Your task to perform on an android device: turn off smart reply in the gmail app Image 0: 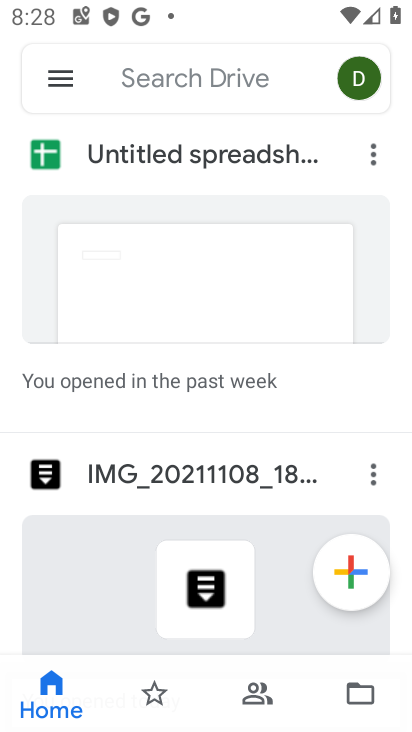
Step 0: press home button
Your task to perform on an android device: turn off smart reply in the gmail app Image 1: 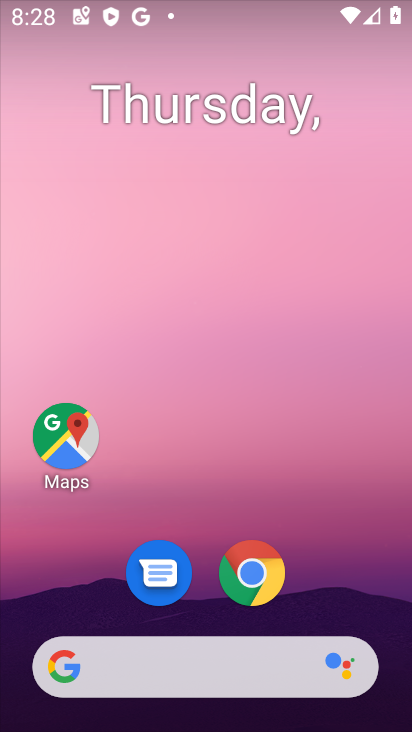
Step 1: drag from (309, 515) to (330, 165)
Your task to perform on an android device: turn off smart reply in the gmail app Image 2: 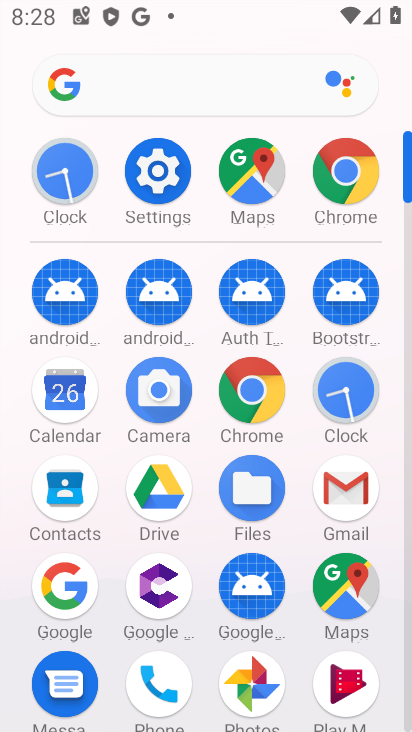
Step 2: click (333, 509)
Your task to perform on an android device: turn off smart reply in the gmail app Image 3: 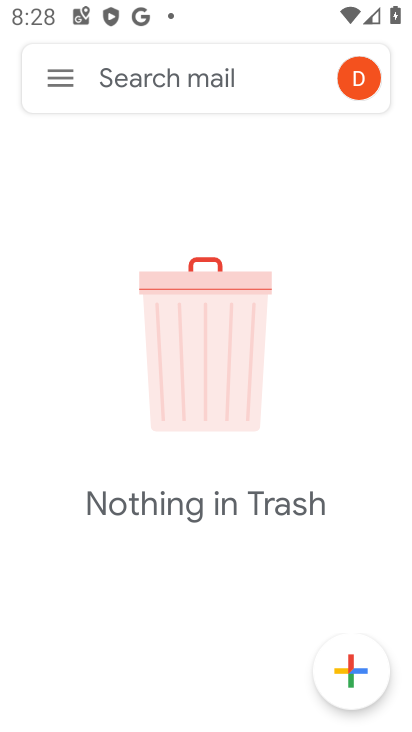
Step 3: click (69, 84)
Your task to perform on an android device: turn off smart reply in the gmail app Image 4: 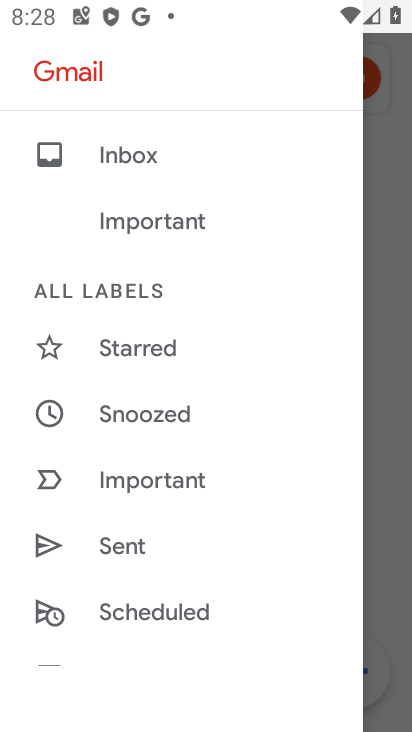
Step 4: drag from (170, 676) to (251, 230)
Your task to perform on an android device: turn off smart reply in the gmail app Image 5: 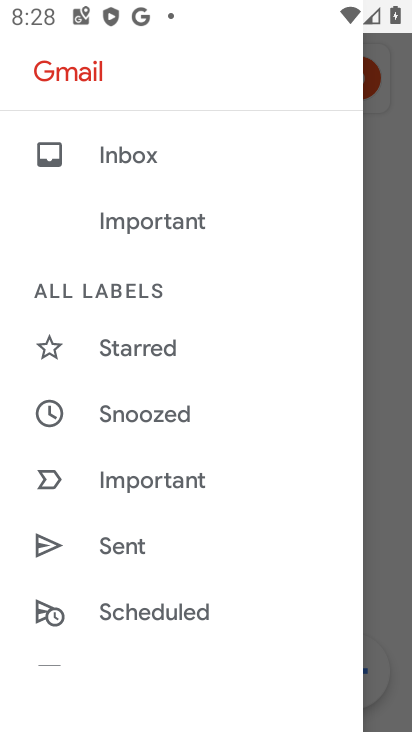
Step 5: drag from (213, 587) to (283, 244)
Your task to perform on an android device: turn off smart reply in the gmail app Image 6: 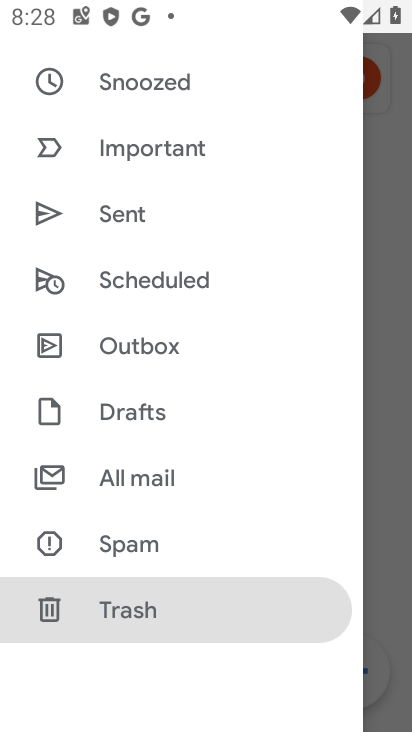
Step 6: drag from (227, 524) to (260, 148)
Your task to perform on an android device: turn off smart reply in the gmail app Image 7: 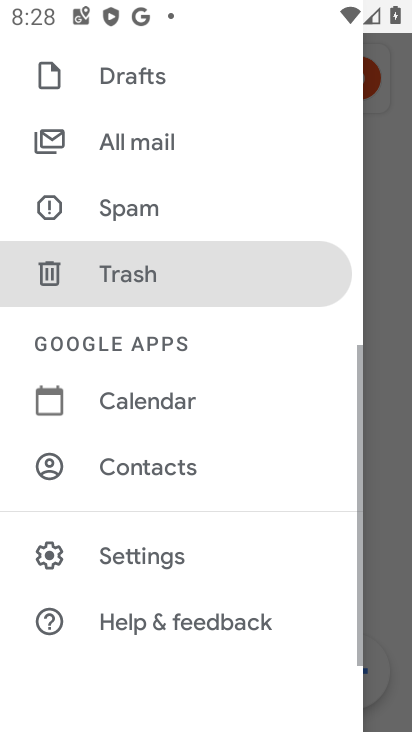
Step 7: click (168, 564)
Your task to perform on an android device: turn off smart reply in the gmail app Image 8: 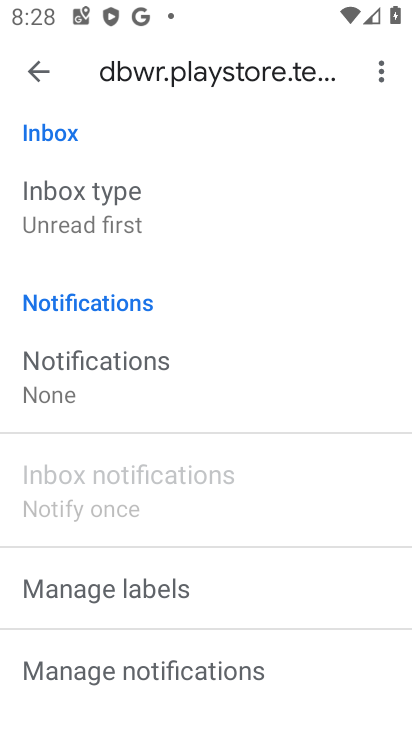
Step 8: drag from (241, 618) to (287, 301)
Your task to perform on an android device: turn off smart reply in the gmail app Image 9: 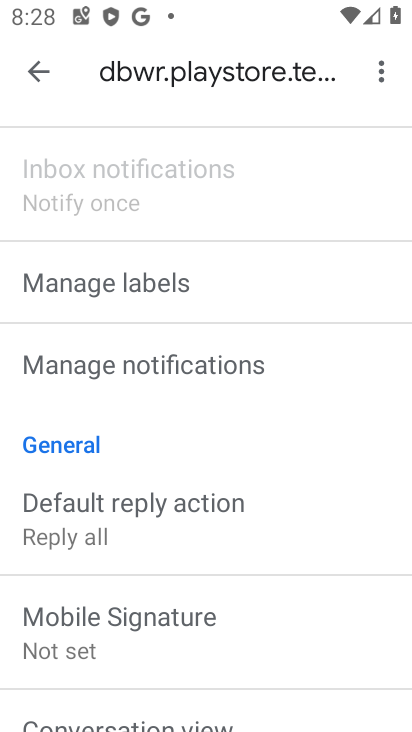
Step 9: drag from (280, 662) to (284, 340)
Your task to perform on an android device: turn off smart reply in the gmail app Image 10: 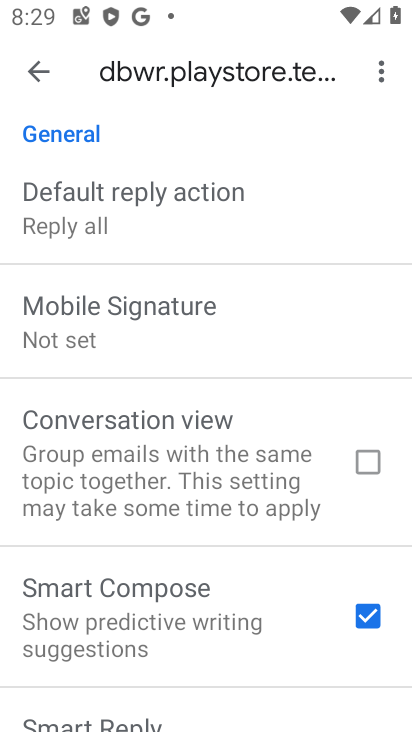
Step 10: drag from (227, 603) to (233, 310)
Your task to perform on an android device: turn off smart reply in the gmail app Image 11: 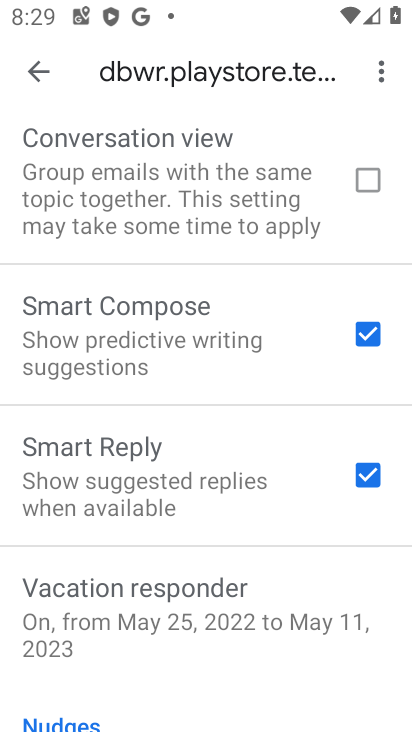
Step 11: click (372, 481)
Your task to perform on an android device: turn off smart reply in the gmail app Image 12: 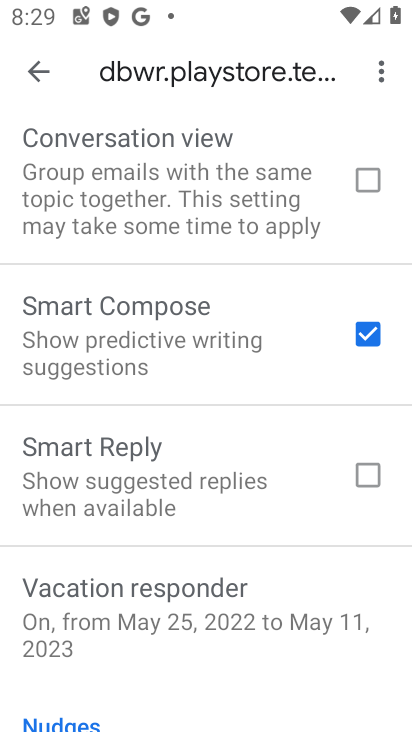
Step 12: task complete